Your task to perform on an android device: turn on improve location accuracy Image 0: 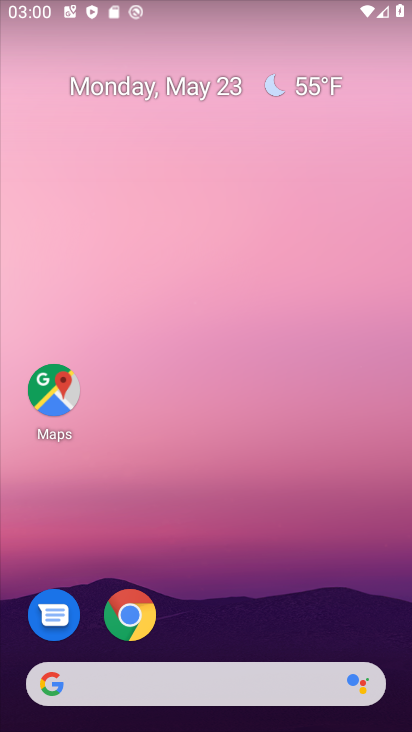
Step 0: drag from (384, 629) to (369, 246)
Your task to perform on an android device: turn on improve location accuracy Image 1: 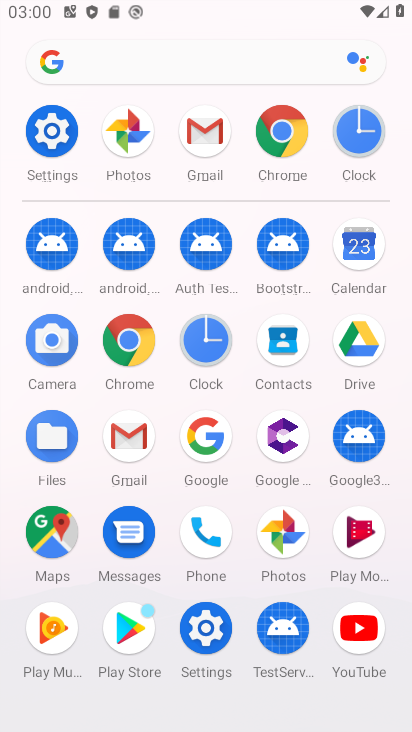
Step 1: click (218, 632)
Your task to perform on an android device: turn on improve location accuracy Image 2: 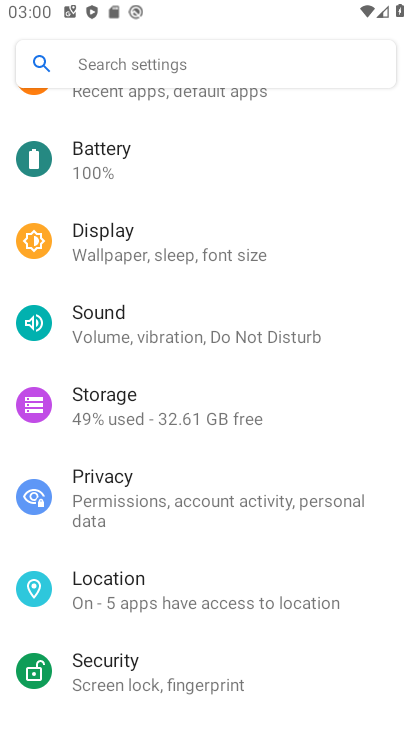
Step 2: drag from (354, 407) to (349, 546)
Your task to perform on an android device: turn on improve location accuracy Image 3: 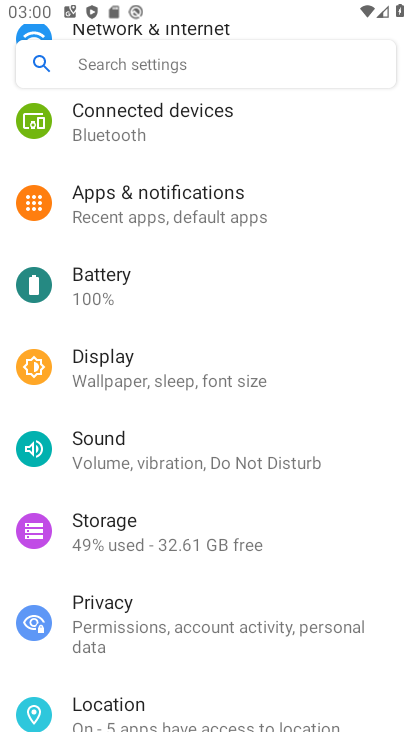
Step 3: drag from (371, 341) to (343, 502)
Your task to perform on an android device: turn on improve location accuracy Image 4: 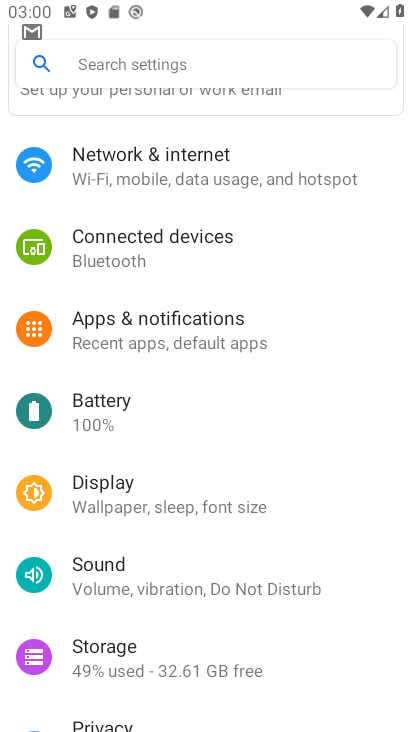
Step 4: drag from (359, 300) to (342, 449)
Your task to perform on an android device: turn on improve location accuracy Image 5: 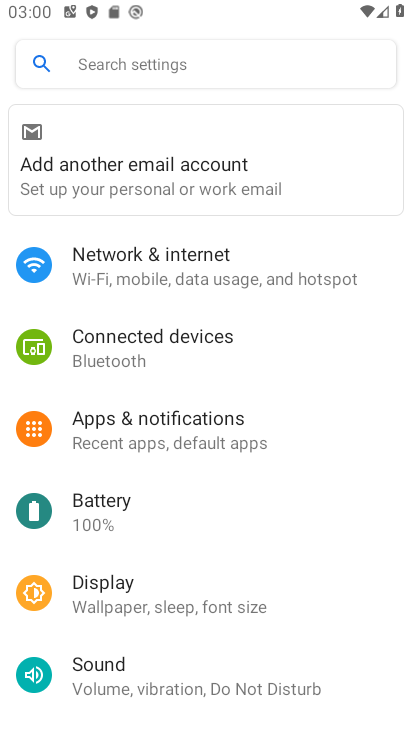
Step 5: drag from (350, 511) to (361, 352)
Your task to perform on an android device: turn on improve location accuracy Image 6: 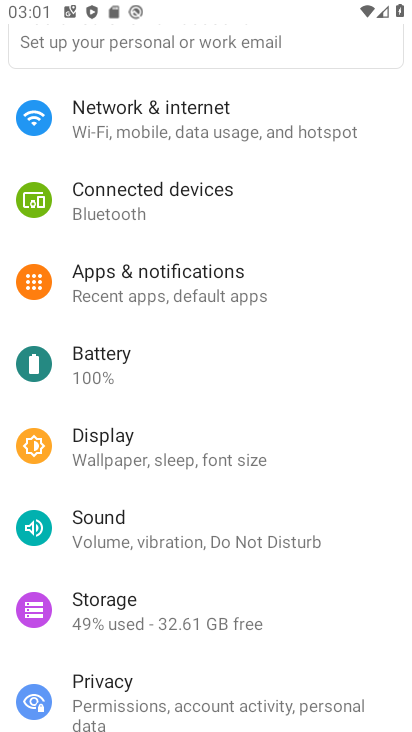
Step 6: drag from (360, 582) to (360, 434)
Your task to perform on an android device: turn on improve location accuracy Image 7: 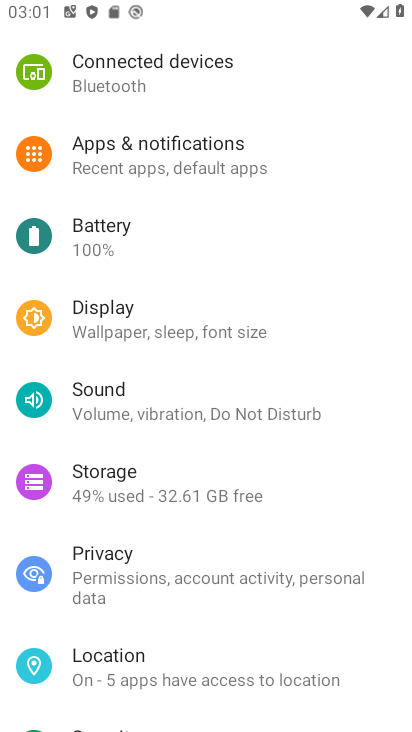
Step 7: drag from (351, 630) to (357, 542)
Your task to perform on an android device: turn on improve location accuracy Image 8: 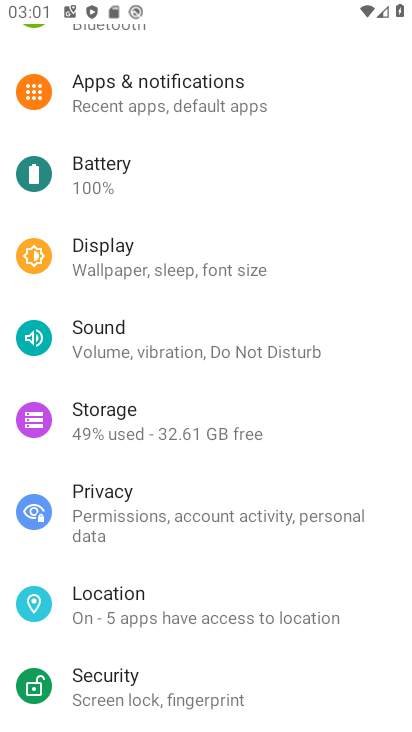
Step 8: drag from (342, 659) to (350, 491)
Your task to perform on an android device: turn on improve location accuracy Image 9: 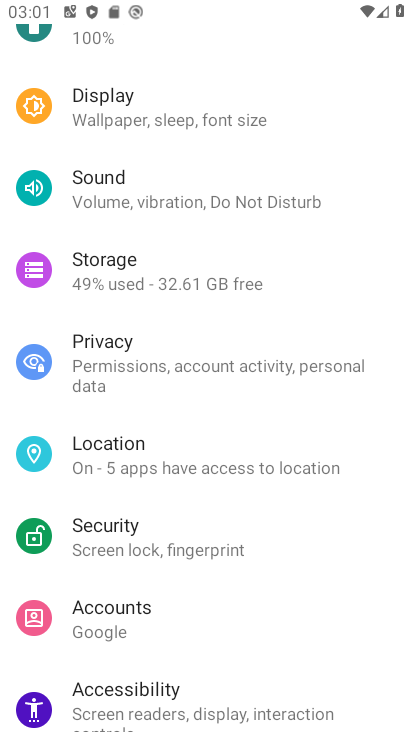
Step 9: drag from (351, 646) to (329, 565)
Your task to perform on an android device: turn on improve location accuracy Image 10: 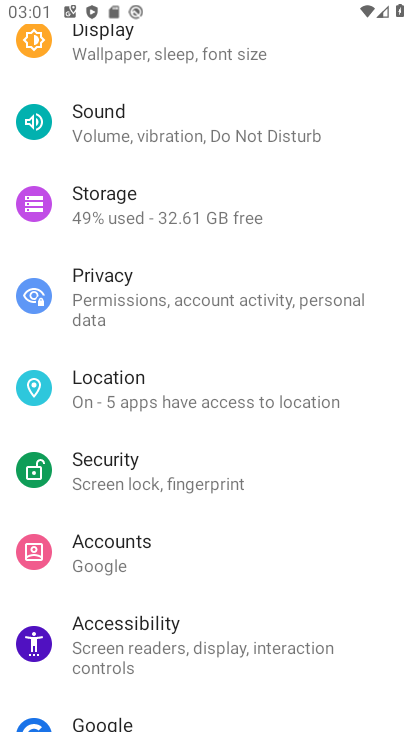
Step 10: drag from (337, 664) to (353, 536)
Your task to perform on an android device: turn on improve location accuracy Image 11: 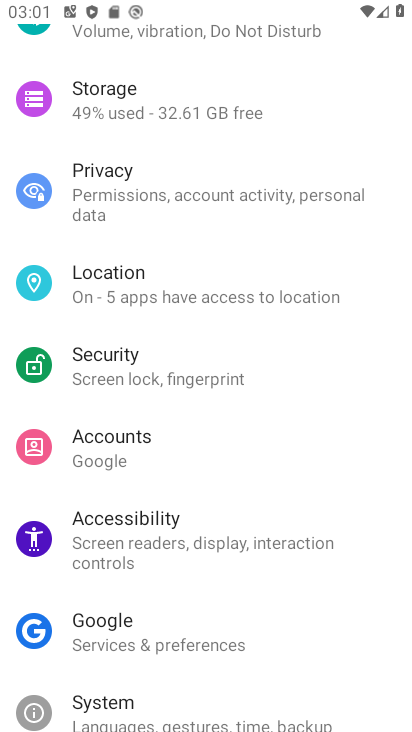
Step 11: click (303, 306)
Your task to perform on an android device: turn on improve location accuracy Image 12: 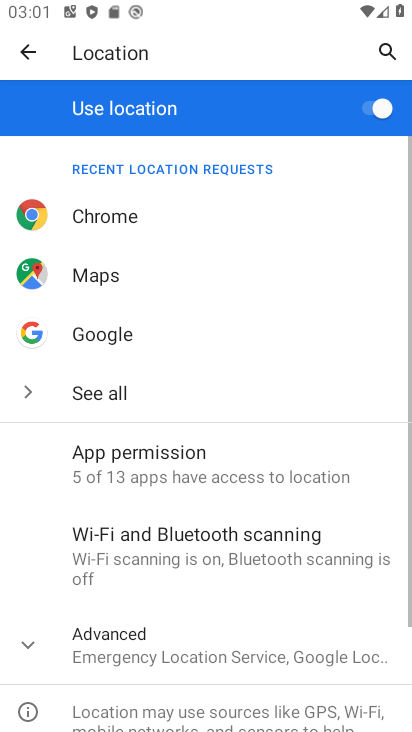
Step 12: drag from (240, 598) to (267, 480)
Your task to perform on an android device: turn on improve location accuracy Image 13: 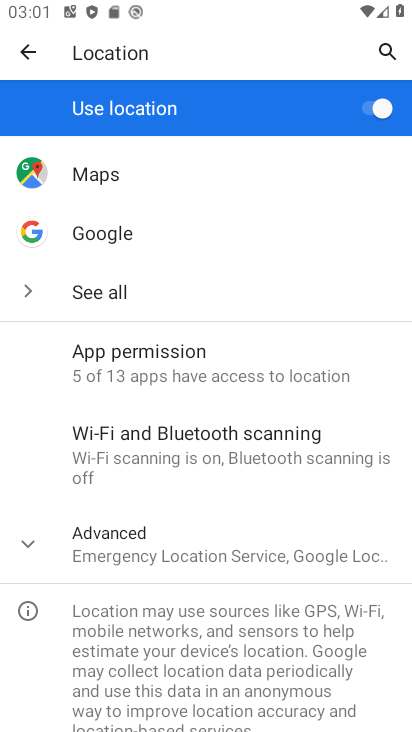
Step 13: click (175, 547)
Your task to perform on an android device: turn on improve location accuracy Image 14: 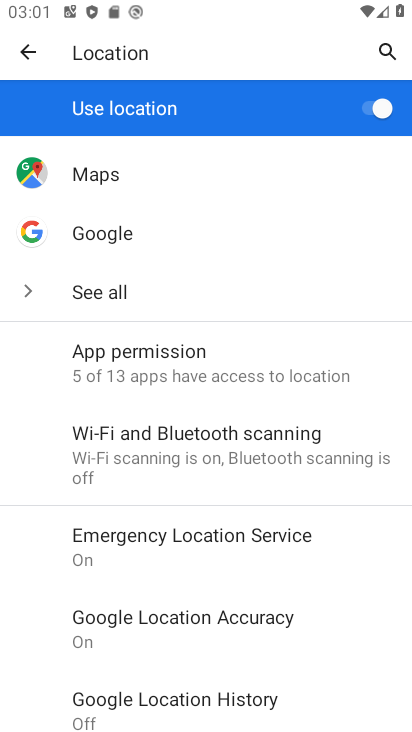
Step 14: drag from (308, 648) to (327, 535)
Your task to perform on an android device: turn on improve location accuracy Image 15: 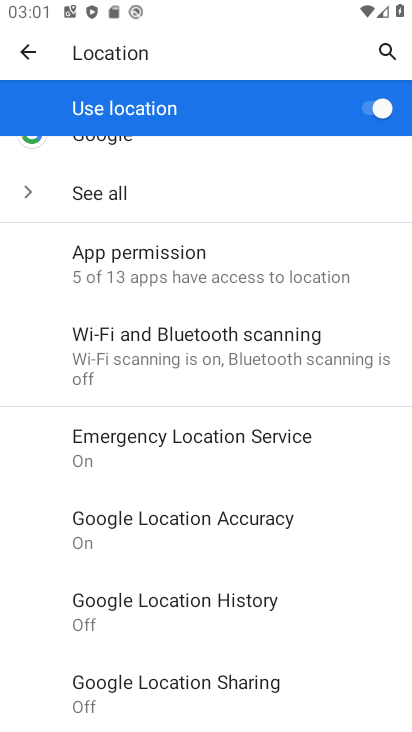
Step 15: drag from (322, 666) to (331, 538)
Your task to perform on an android device: turn on improve location accuracy Image 16: 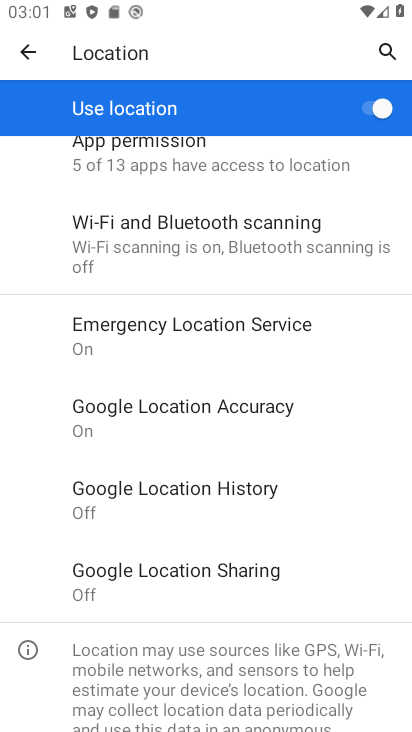
Step 16: drag from (303, 627) to (301, 546)
Your task to perform on an android device: turn on improve location accuracy Image 17: 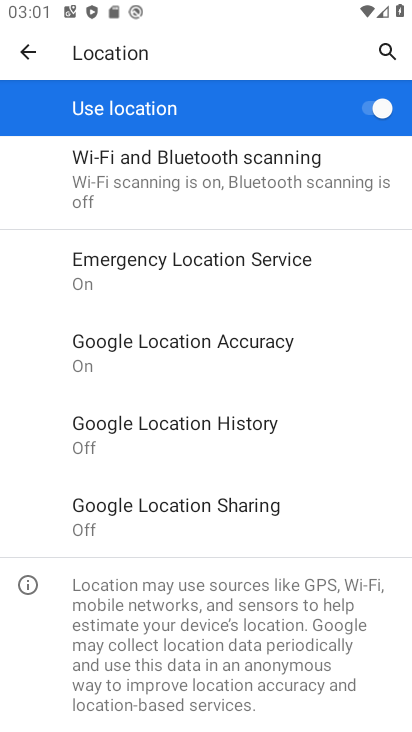
Step 17: click (199, 351)
Your task to perform on an android device: turn on improve location accuracy Image 18: 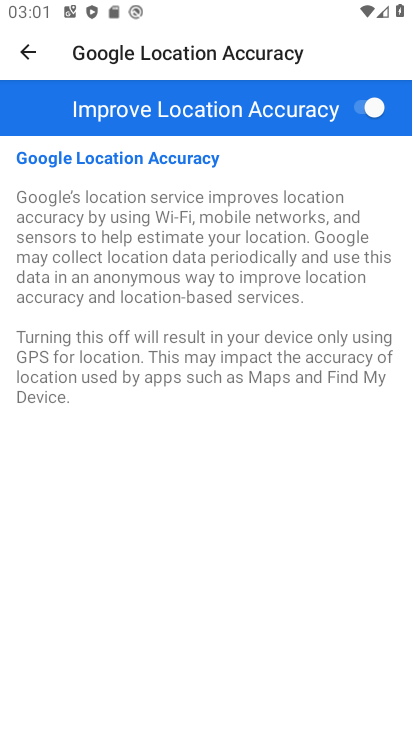
Step 18: task complete